Your task to perform on an android device: Open sound settings Image 0: 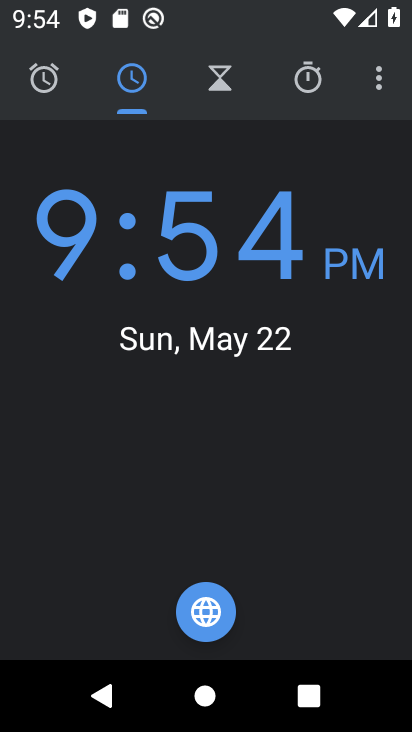
Step 0: press back button
Your task to perform on an android device: Open sound settings Image 1: 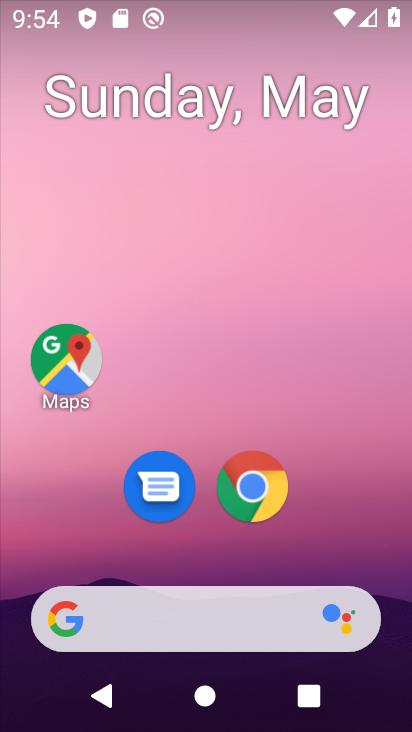
Step 1: drag from (336, 523) to (257, 169)
Your task to perform on an android device: Open sound settings Image 2: 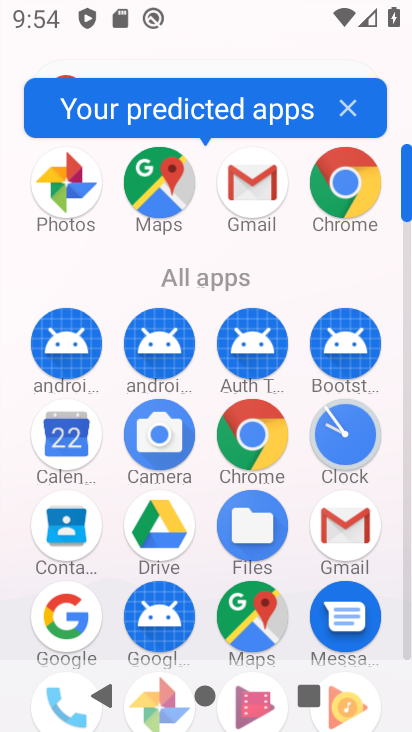
Step 2: drag from (300, 513) to (283, 260)
Your task to perform on an android device: Open sound settings Image 3: 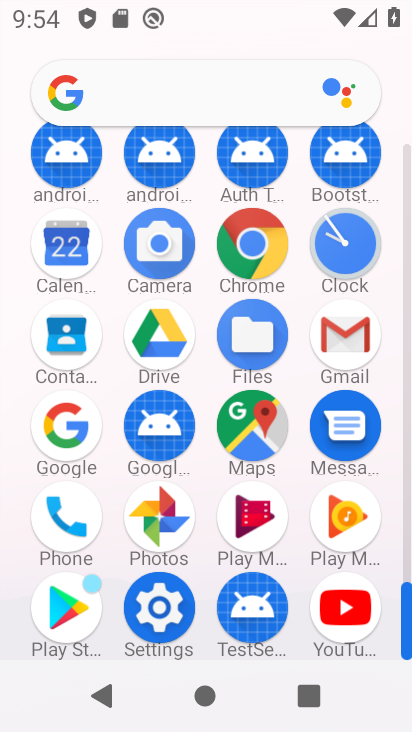
Step 3: click (158, 606)
Your task to perform on an android device: Open sound settings Image 4: 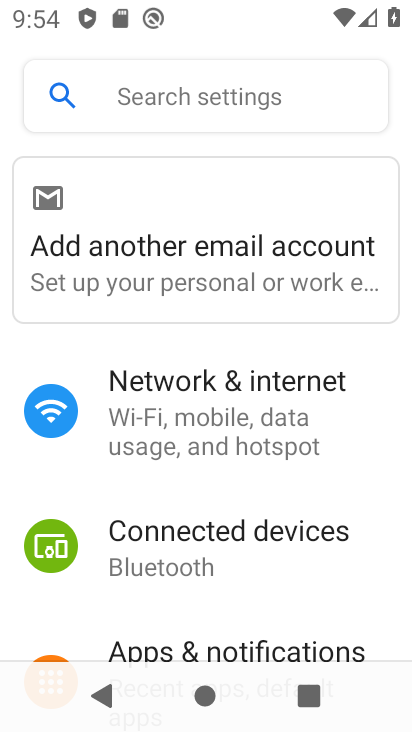
Step 4: drag from (156, 602) to (223, 484)
Your task to perform on an android device: Open sound settings Image 5: 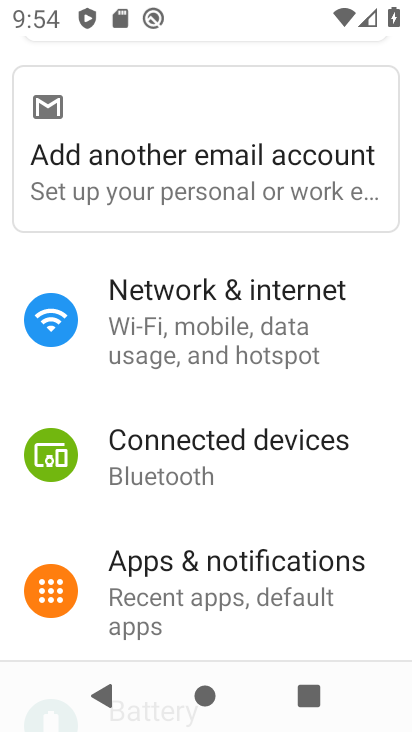
Step 5: drag from (152, 524) to (219, 413)
Your task to perform on an android device: Open sound settings Image 6: 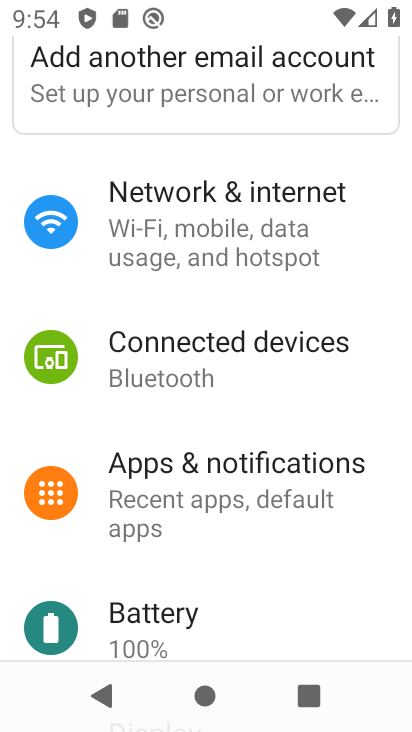
Step 6: drag from (155, 555) to (234, 429)
Your task to perform on an android device: Open sound settings Image 7: 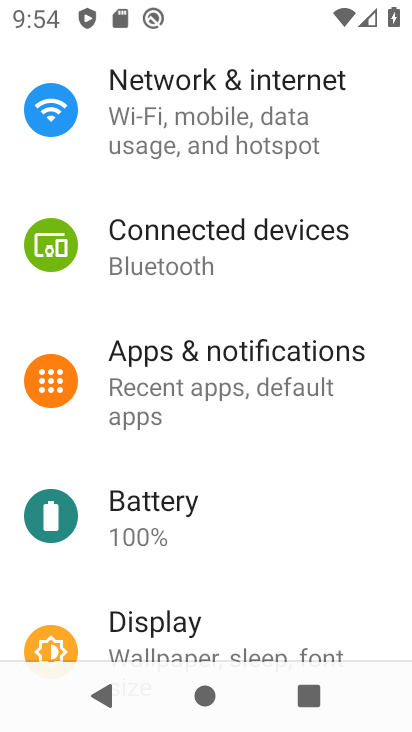
Step 7: drag from (143, 585) to (214, 448)
Your task to perform on an android device: Open sound settings Image 8: 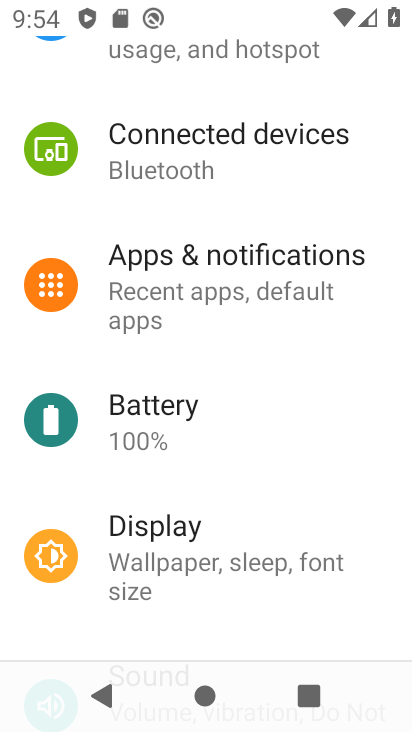
Step 8: drag from (140, 634) to (216, 473)
Your task to perform on an android device: Open sound settings Image 9: 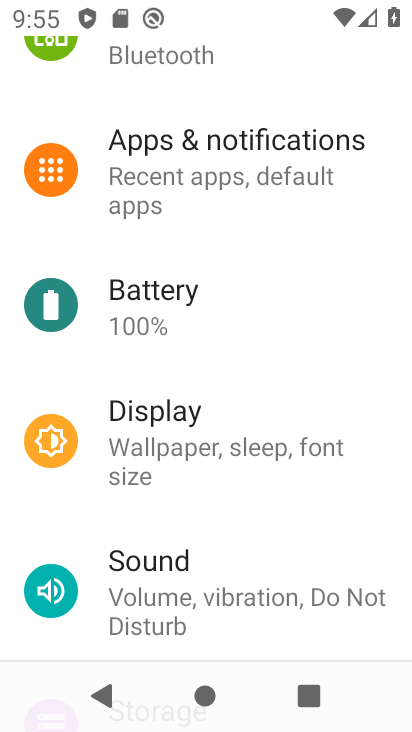
Step 9: drag from (142, 522) to (173, 421)
Your task to perform on an android device: Open sound settings Image 10: 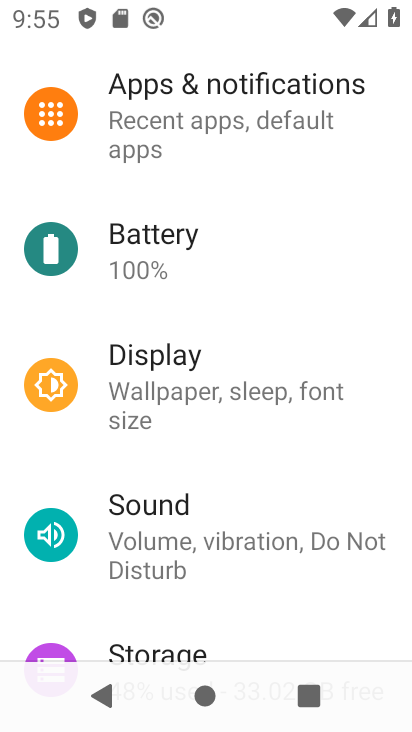
Step 10: click (158, 531)
Your task to perform on an android device: Open sound settings Image 11: 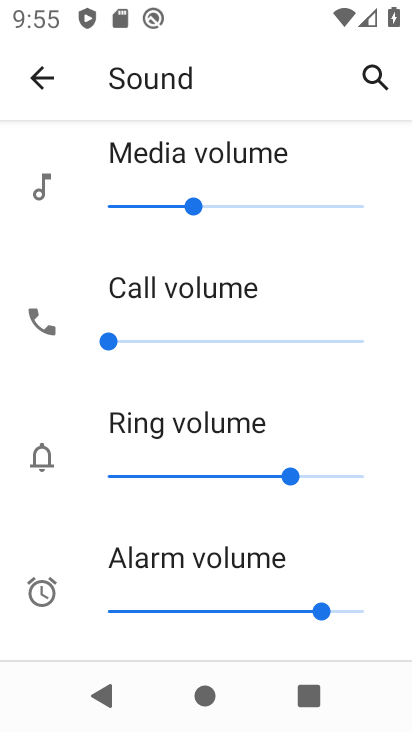
Step 11: task complete